Your task to perform on an android device: Go to ESPN.com Image 0: 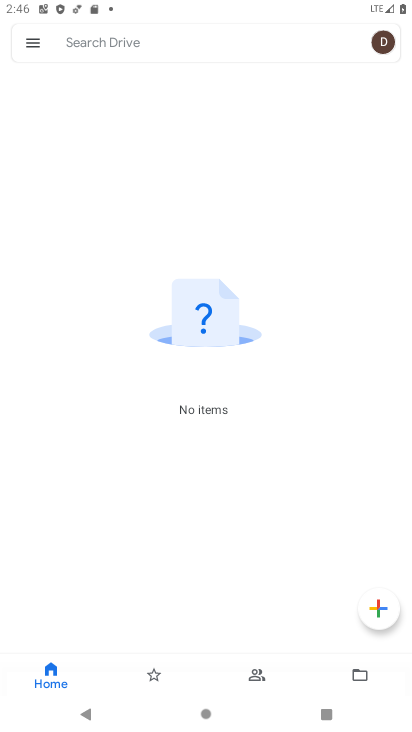
Step 0: press home button
Your task to perform on an android device: Go to ESPN.com Image 1: 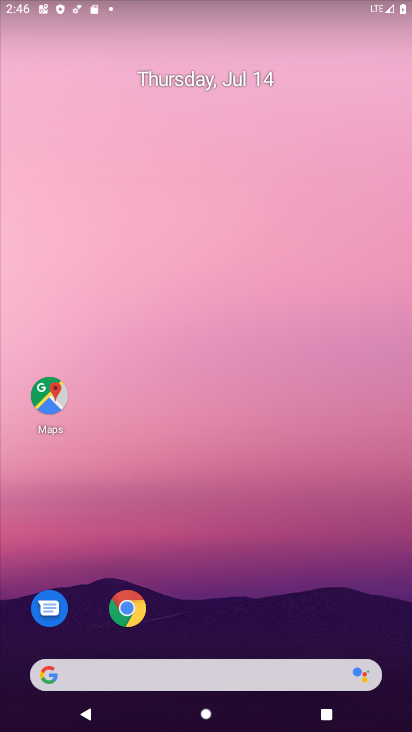
Step 1: click (137, 610)
Your task to perform on an android device: Go to ESPN.com Image 2: 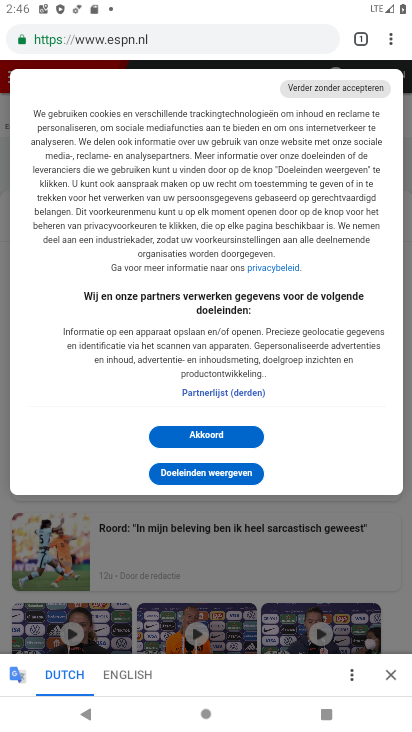
Step 2: click (367, 45)
Your task to perform on an android device: Go to ESPN.com Image 3: 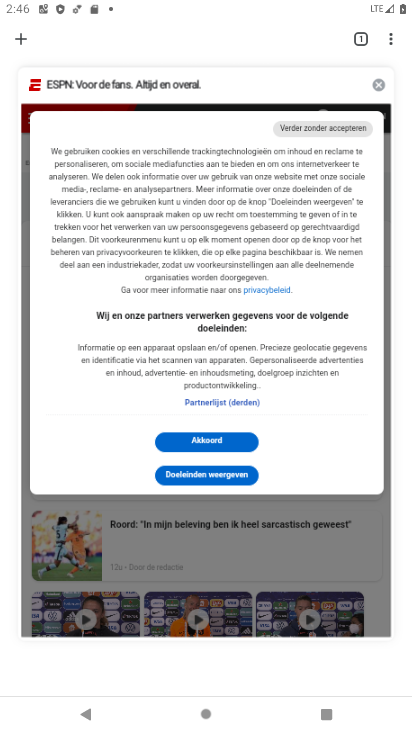
Step 3: click (377, 81)
Your task to perform on an android device: Go to ESPN.com Image 4: 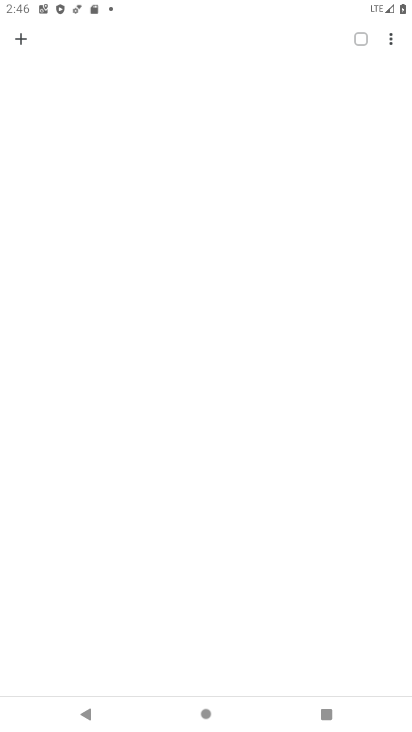
Step 4: click (19, 42)
Your task to perform on an android device: Go to ESPN.com Image 5: 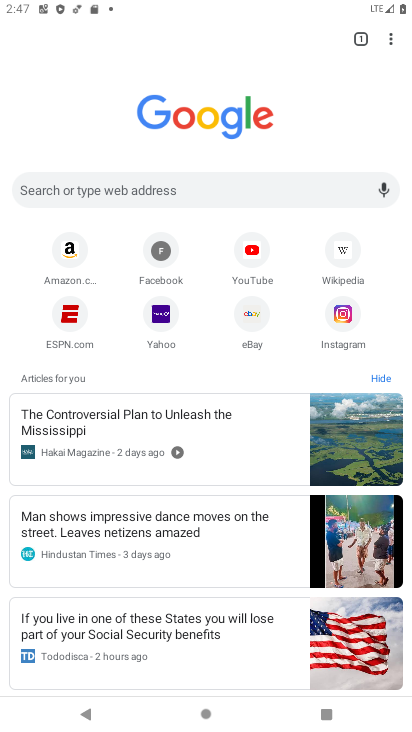
Step 5: click (66, 319)
Your task to perform on an android device: Go to ESPN.com Image 6: 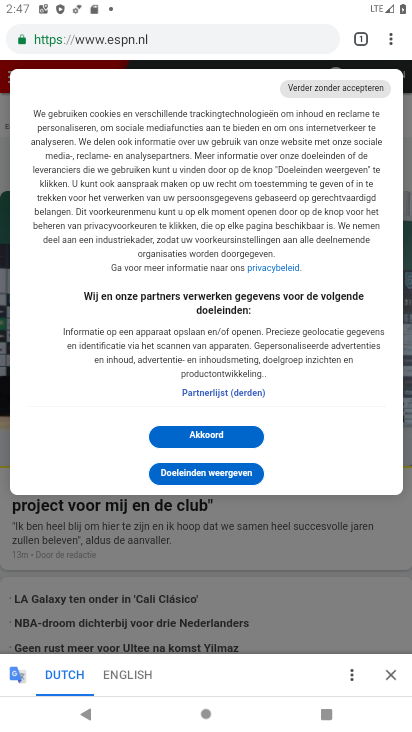
Step 6: task complete